Your task to perform on an android device: Show me popular games on the Play Store Image 0: 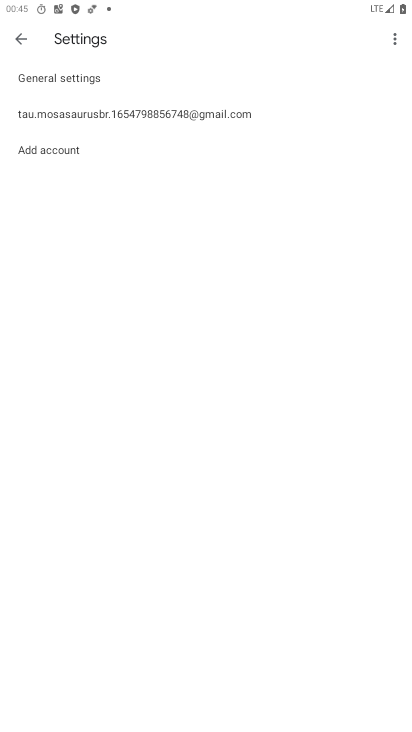
Step 0: press home button
Your task to perform on an android device: Show me popular games on the Play Store Image 1: 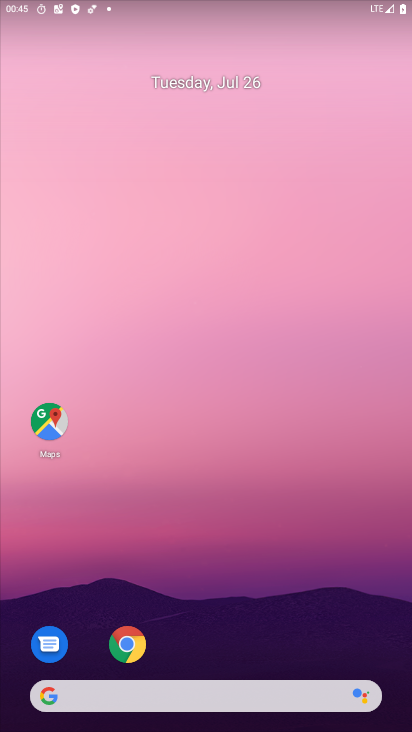
Step 1: drag from (241, 673) to (272, 7)
Your task to perform on an android device: Show me popular games on the Play Store Image 2: 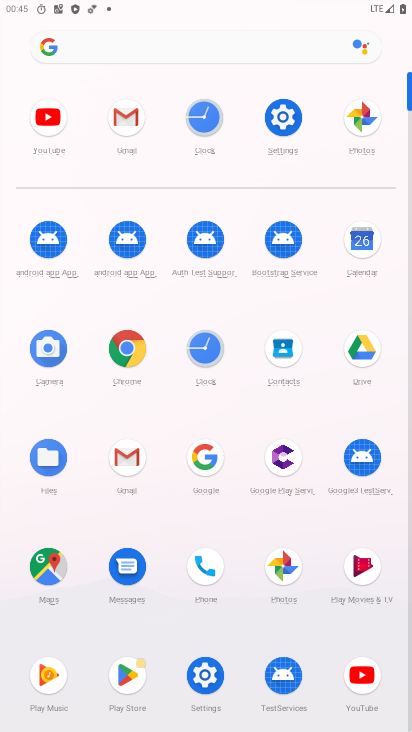
Step 2: click (131, 680)
Your task to perform on an android device: Show me popular games on the Play Store Image 3: 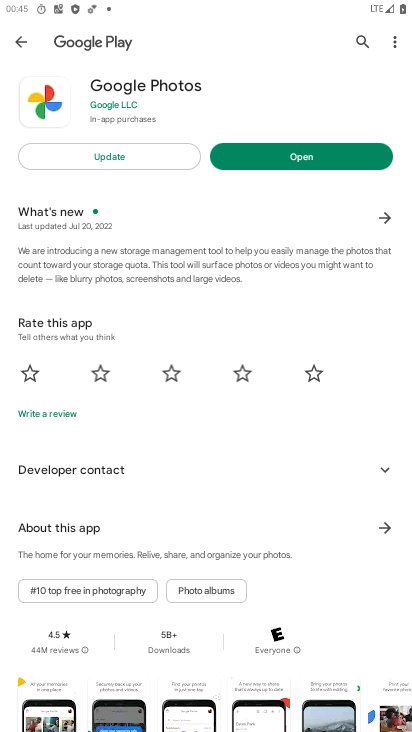
Step 3: click (16, 44)
Your task to perform on an android device: Show me popular games on the Play Store Image 4: 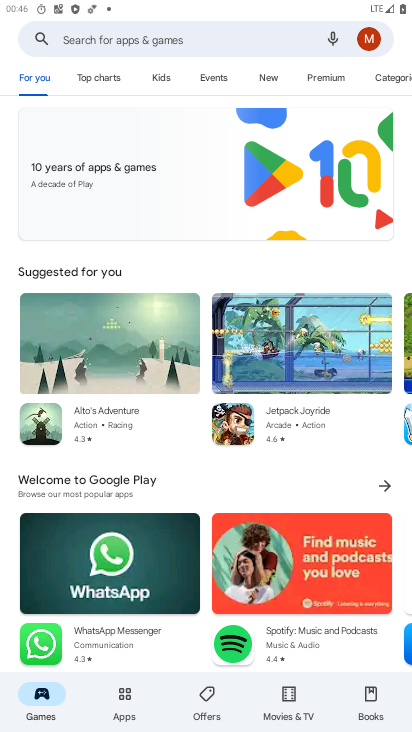
Step 4: drag from (175, 506) to (169, 279)
Your task to perform on an android device: Show me popular games on the Play Store Image 5: 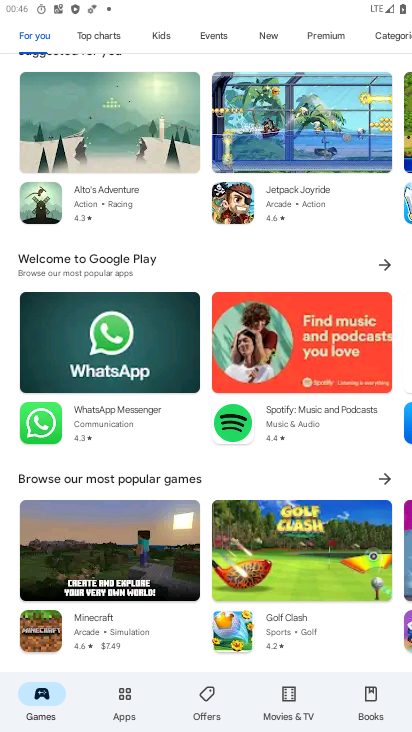
Step 5: click (136, 483)
Your task to perform on an android device: Show me popular games on the Play Store Image 6: 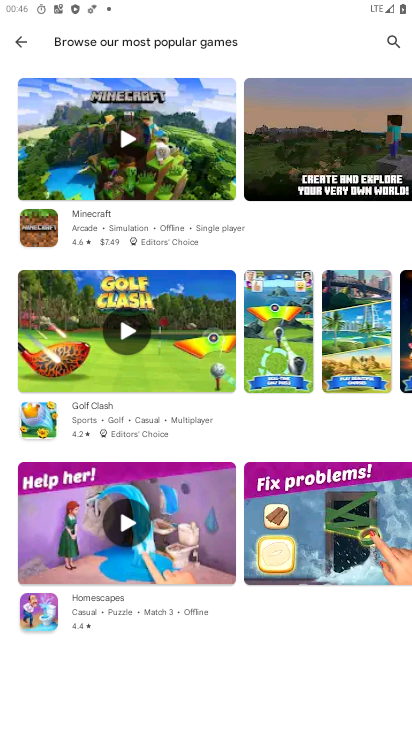
Step 6: task complete